Your task to perform on an android device: install app "Viber Messenger" Image 0: 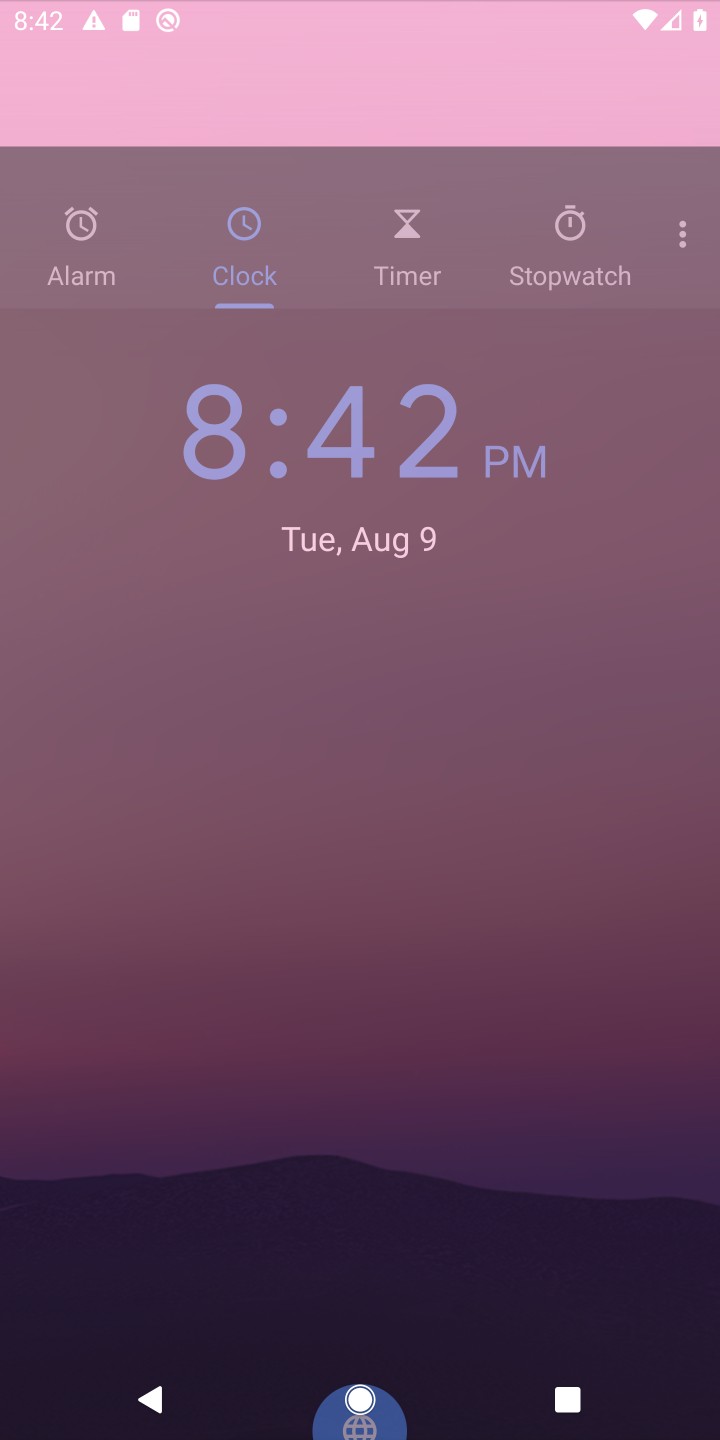
Step 0: press home button
Your task to perform on an android device: install app "Viber Messenger" Image 1: 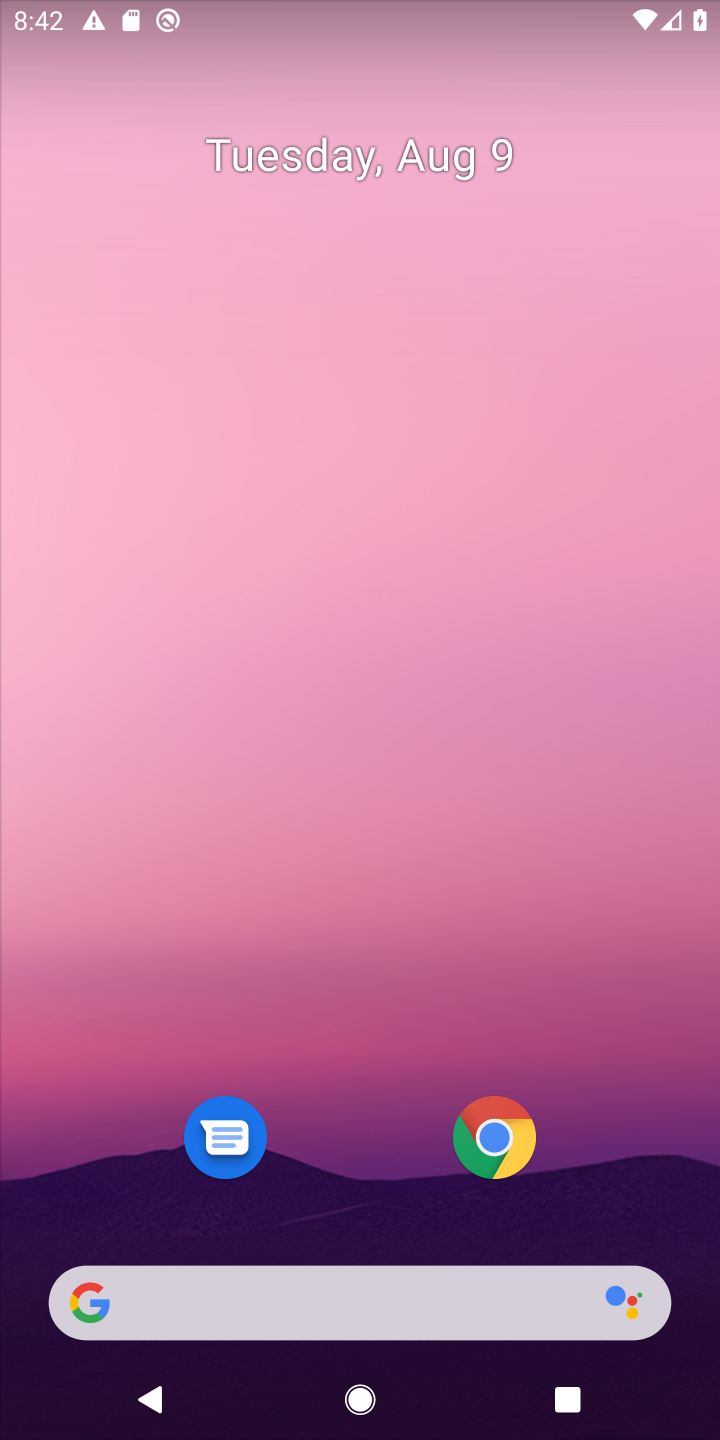
Step 1: drag from (613, 1174) to (651, 199)
Your task to perform on an android device: install app "Viber Messenger" Image 2: 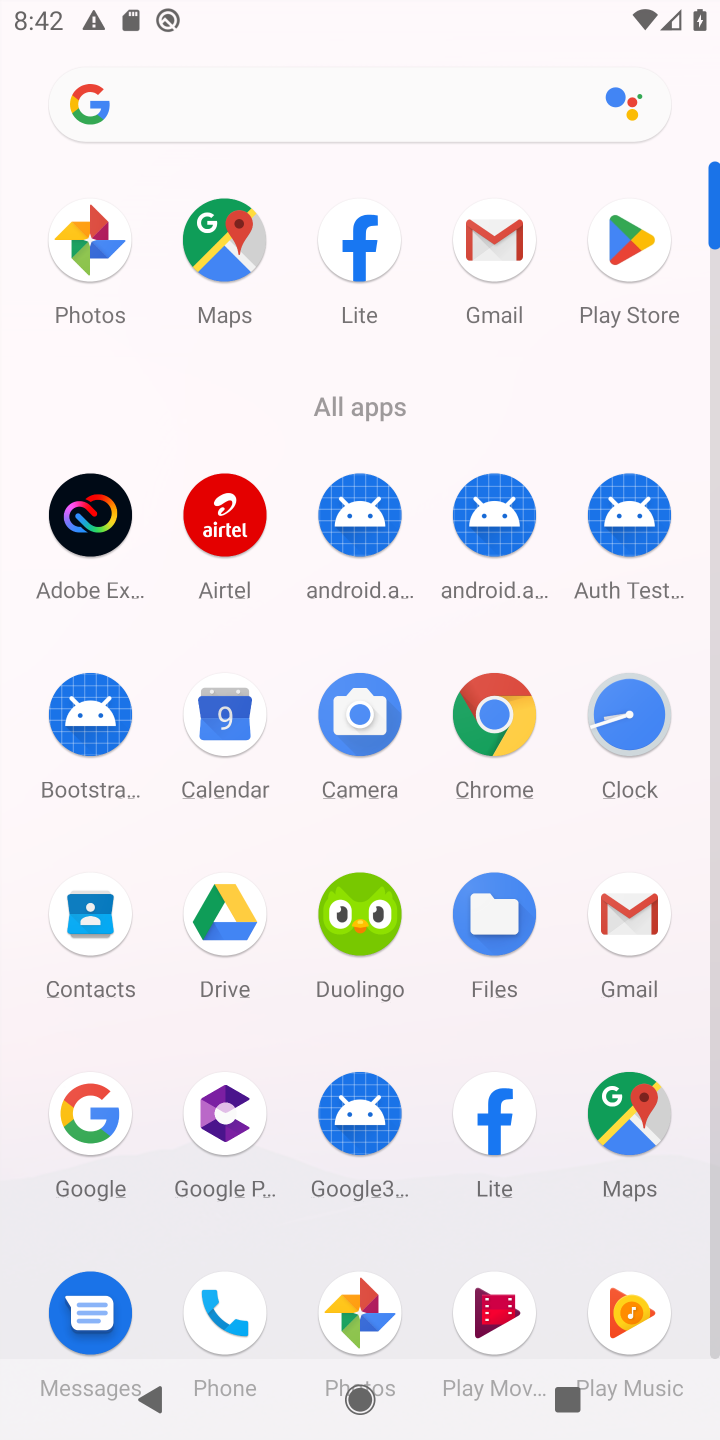
Step 2: click (621, 238)
Your task to perform on an android device: install app "Viber Messenger" Image 3: 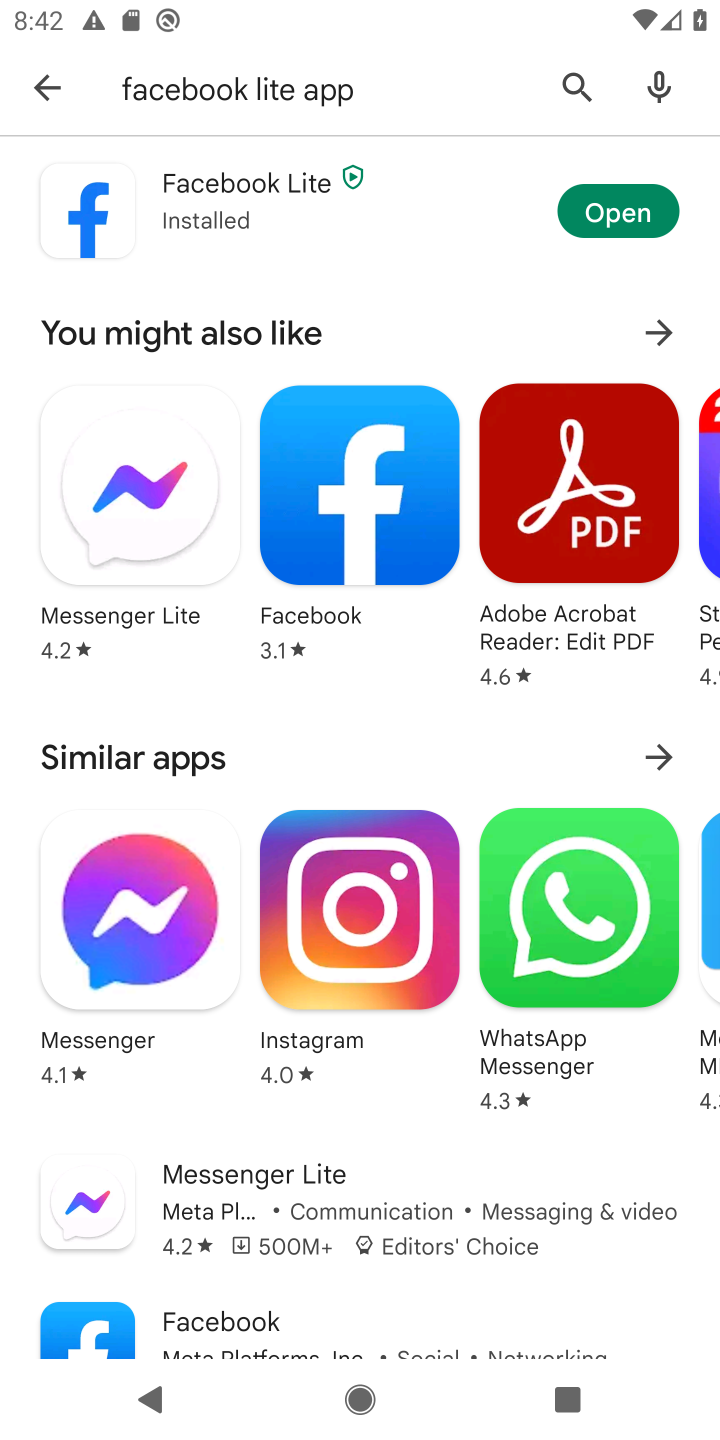
Step 3: click (565, 71)
Your task to perform on an android device: install app "Viber Messenger" Image 4: 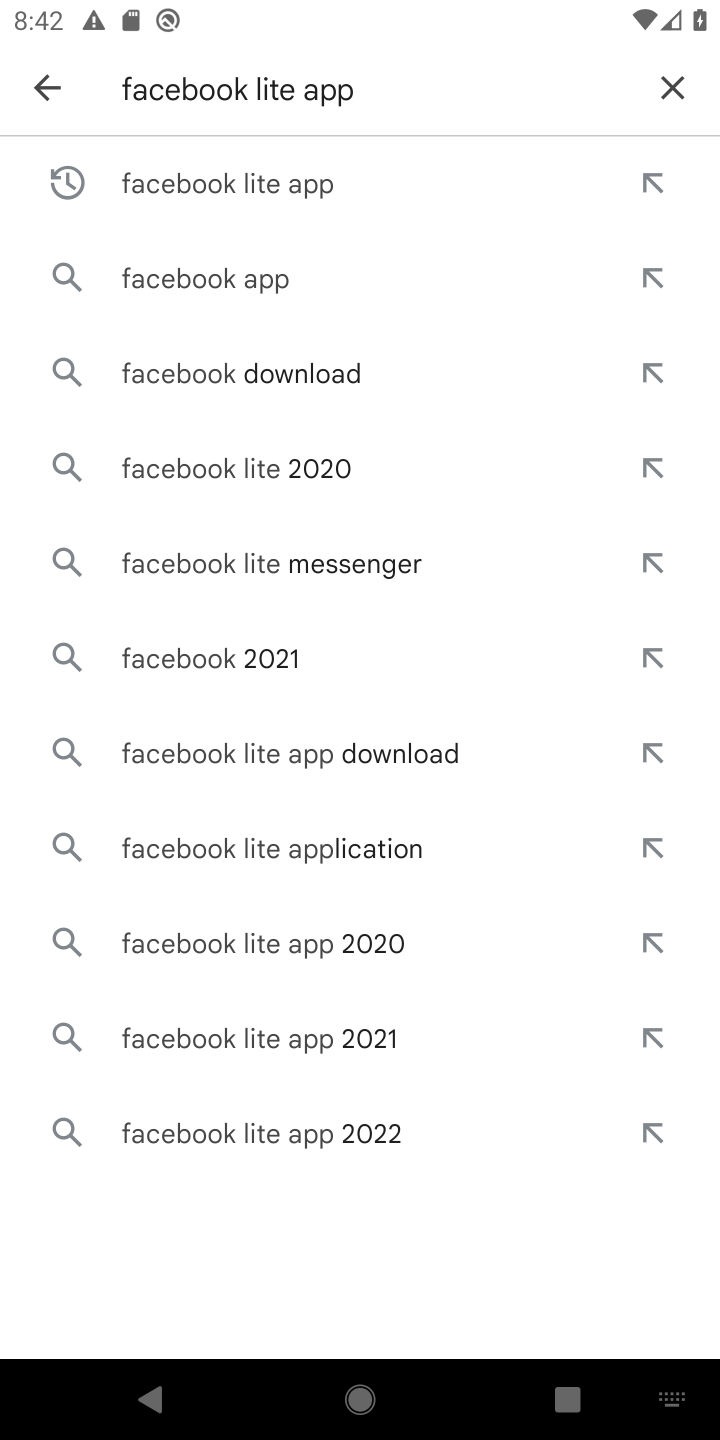
Step 4: click (675, 82)
Your task to perform on an android device: install app "Viber Messenger" Image 5: 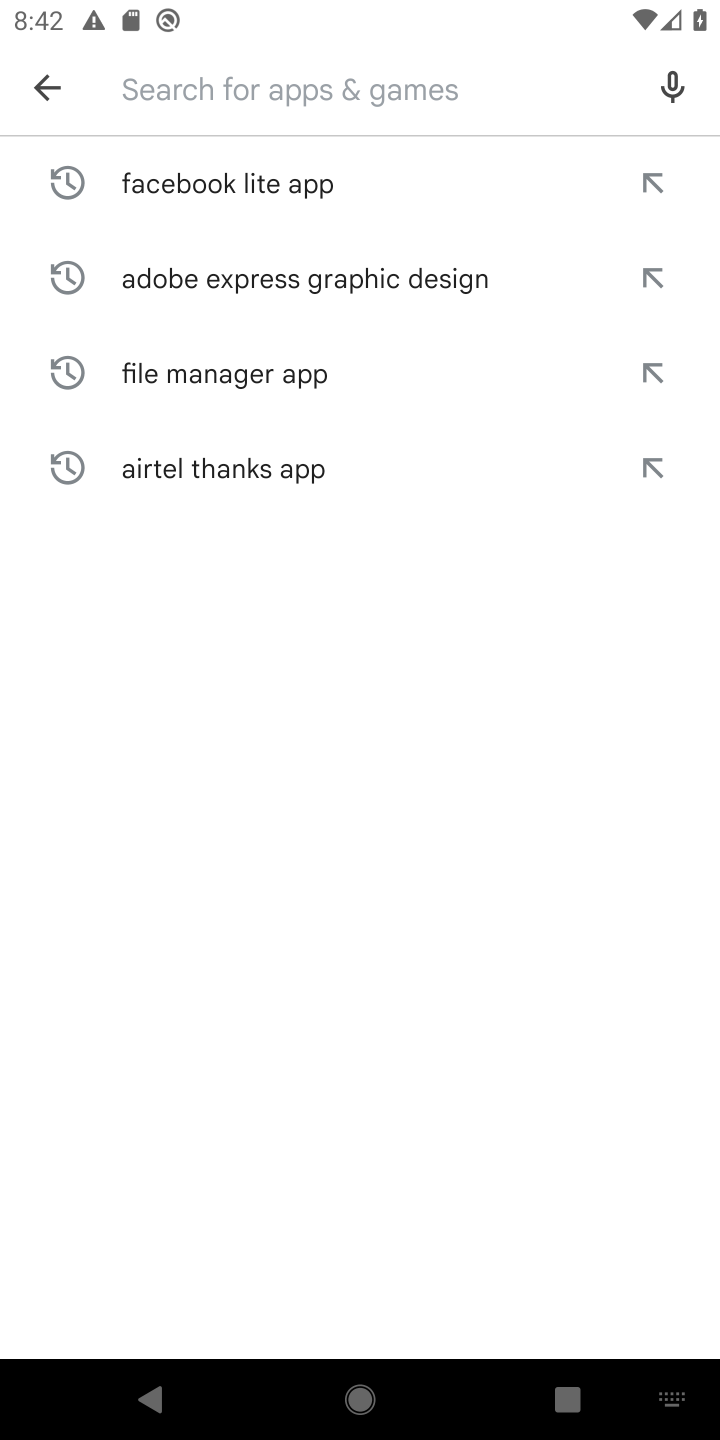
Step 5: type "viber messenger"
Your task to perform on an android device: install app "Viber Messenger" Image 6: 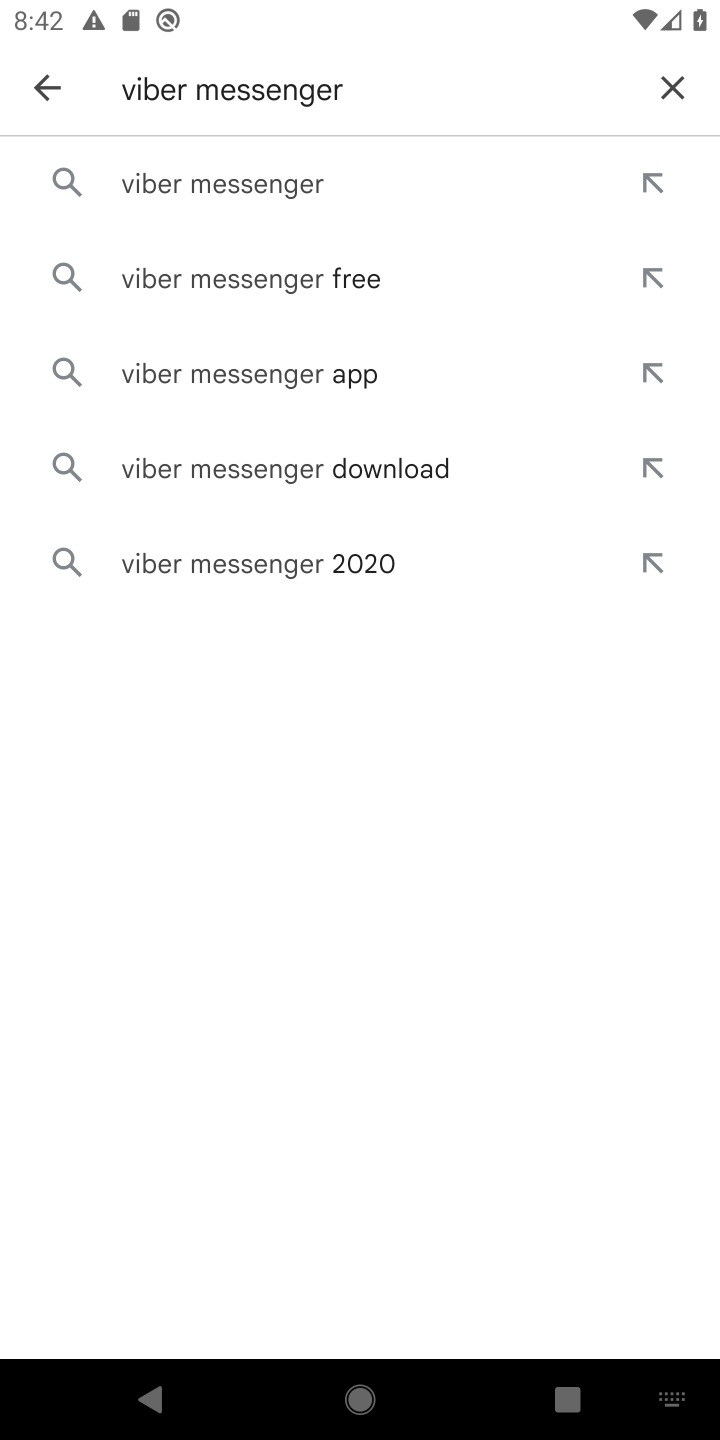
Step 6: click (299, 381)
Your task to perform on an android device: install app "Viber Messenger" Image 7: 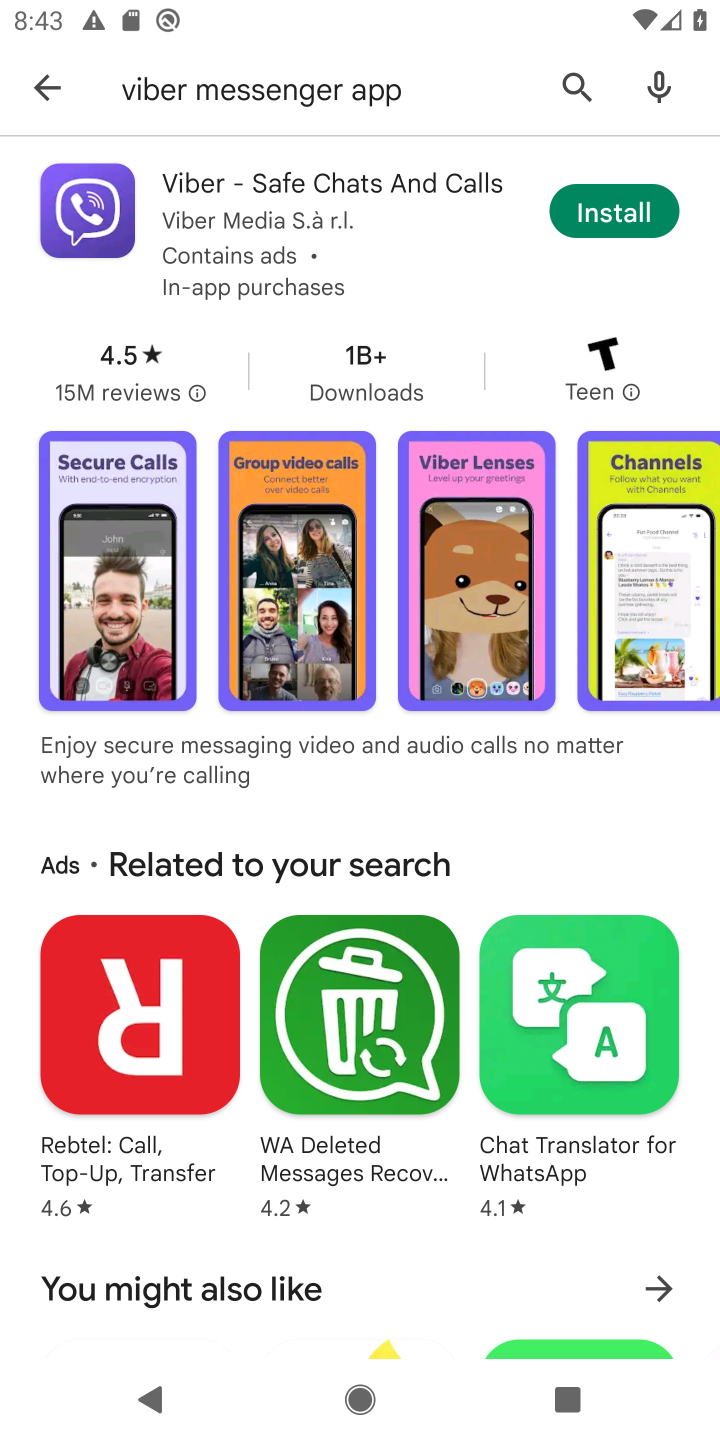
Step 7: click (613, 210)
Your task to perform on an android device: install app "Viber Messenger" Image 8: 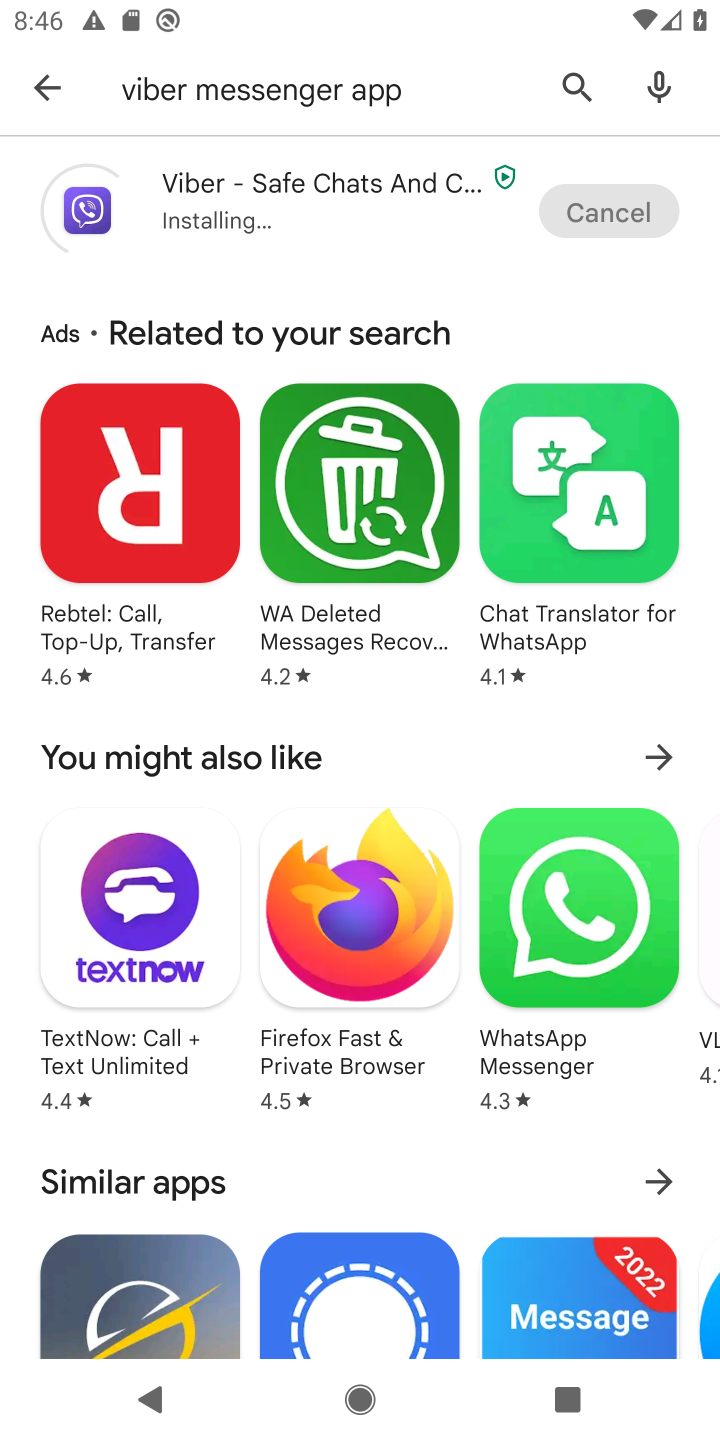
Step 8: task complete